Your task to perform on an android device: turn off priority inbox in the gmail app Image 0: 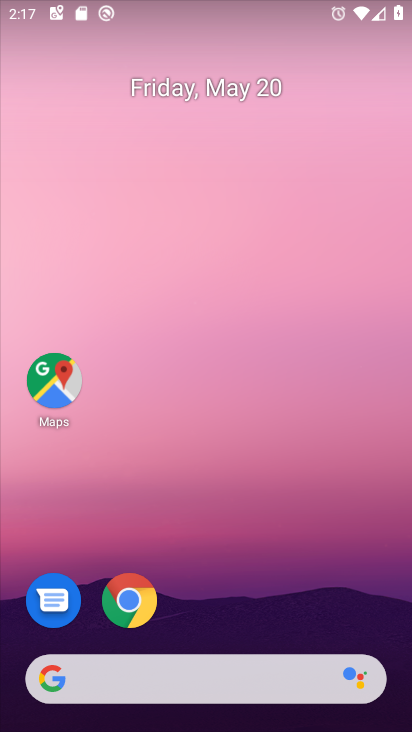
Step 0: drag from (197, 604) to (248, 334)
Your task to perform on an android device: turn off priority inbox in the gmail app Image 1: 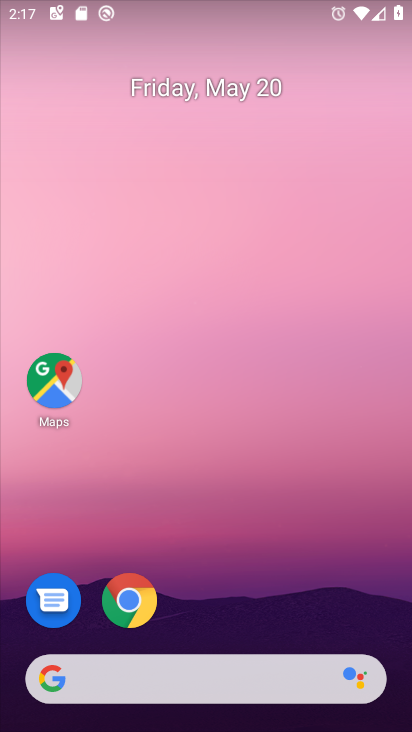
Step 1: drag from (198, 627) to (245, 83)
Your task to perform on an android device: turn off priority inbox in the gmail app Image 2: 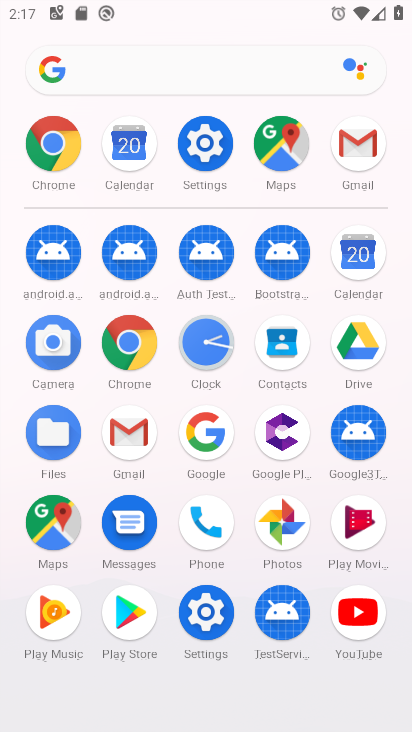
Step 2: click (126, 426)
Your task to perform on an android device: turn off priority inbox in the gmail app Image 3: 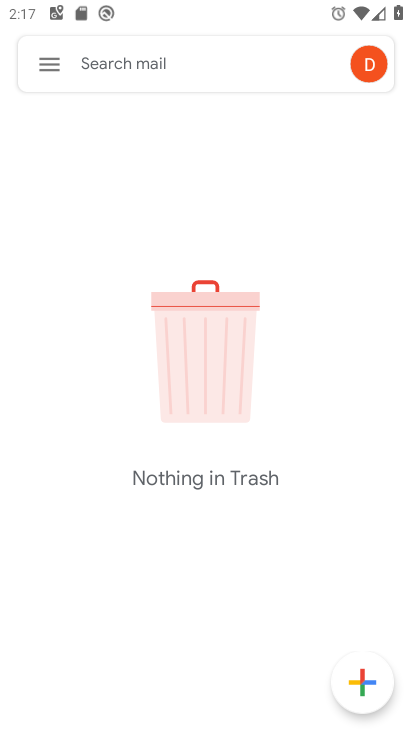
Step 3: click (49, 63)
Your task to perform on an android device: turn off priority inbox in the gmail app Image 4: 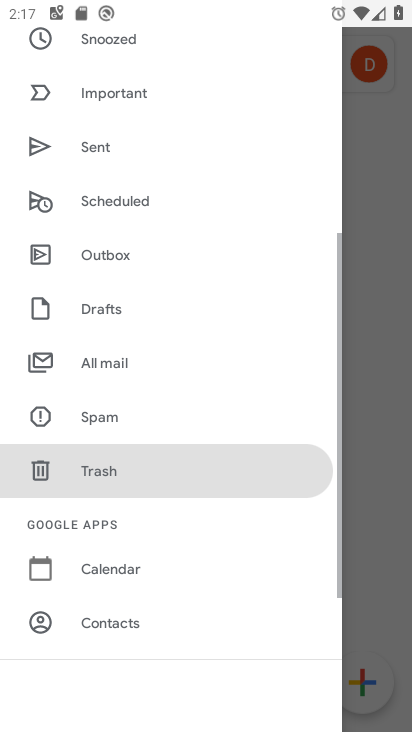
Step 4: drag from (101, 607) to (189, 151)
Your task to perform on an android device: turn off priority inbox in the gmail app Image 5: 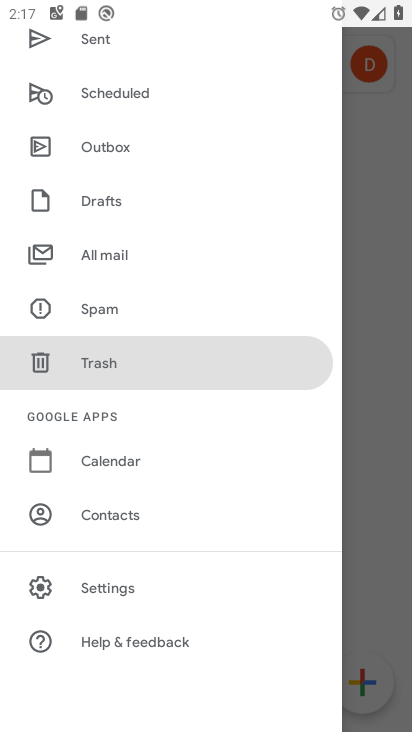
Step 5: click (107, 585)
Your task to perform on an android device: turn off priority inbox in the gmail app Image 6: 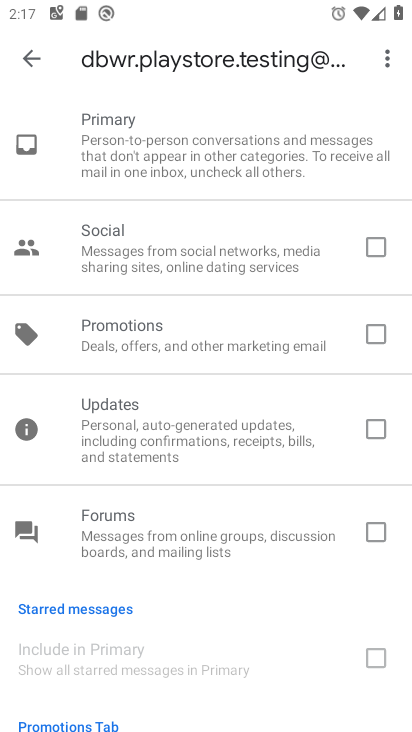
Step 6: click (30, 57)
Your task to perform on an android device: turn off priority inbox in the gmail app Image 7: 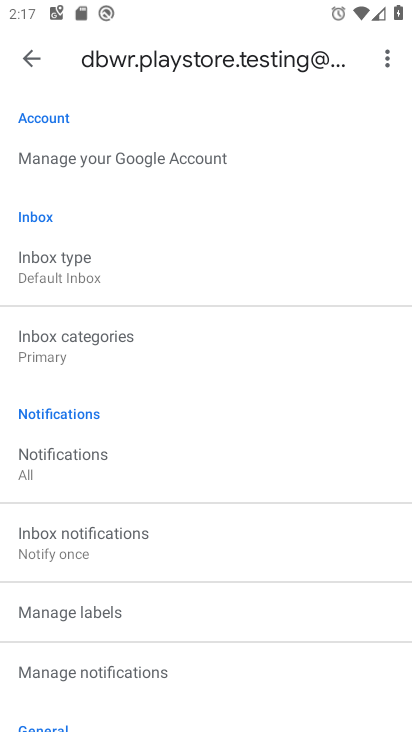
Step 7: click (132, 280)
Your task to perform on an android device: turn off priority inbox in the gmail app Image 8: 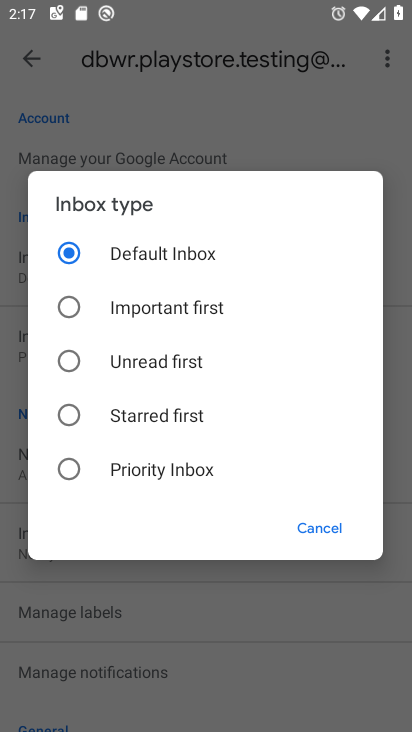
Step 8: click (141, 471)
Your task to perform on an android device: turn off priority inbox in the gmail app Image 9: 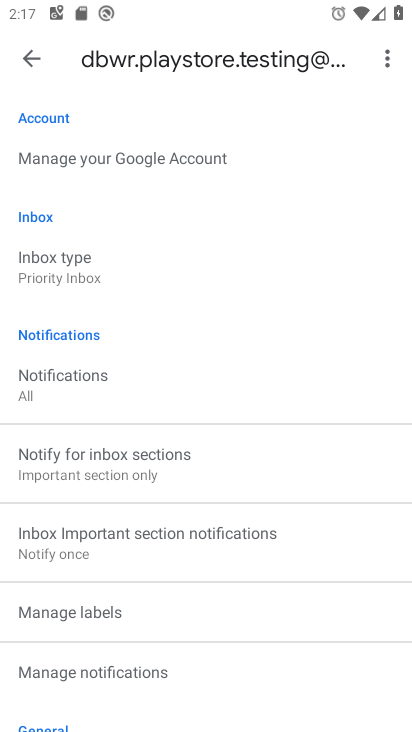
Step 9: task complete